Your task to perform on an android device: What's the weather going to be tomorrow? Image 0: 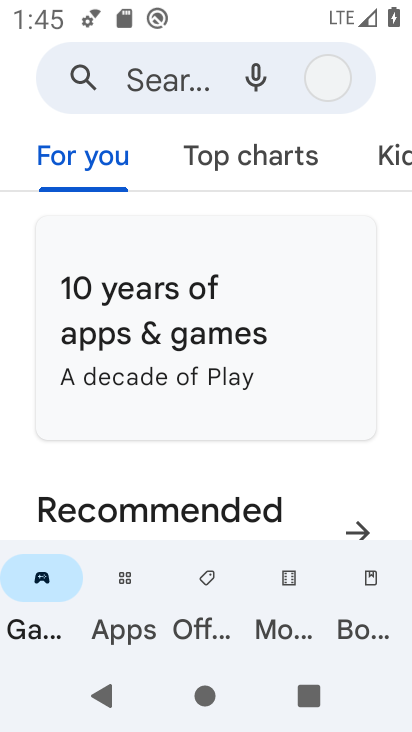
Step 0: press home button
Your task to perform on an android device: What's the weather going to be tomorrow? Image 1: 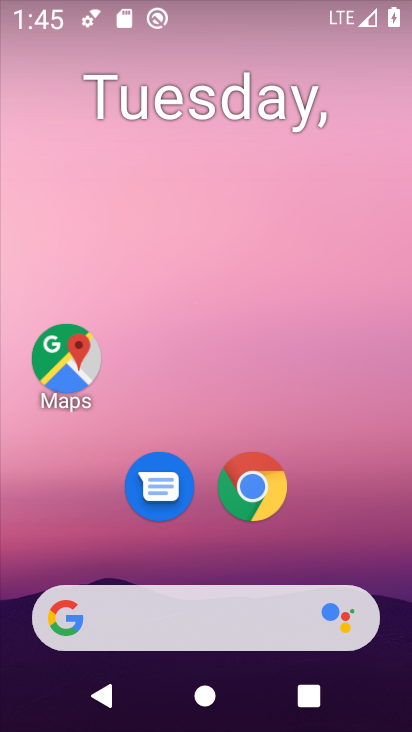
Step 1: click (220, 606)
Your task to perform on an android device: What's the weather going to be tomorrow? Image 2: 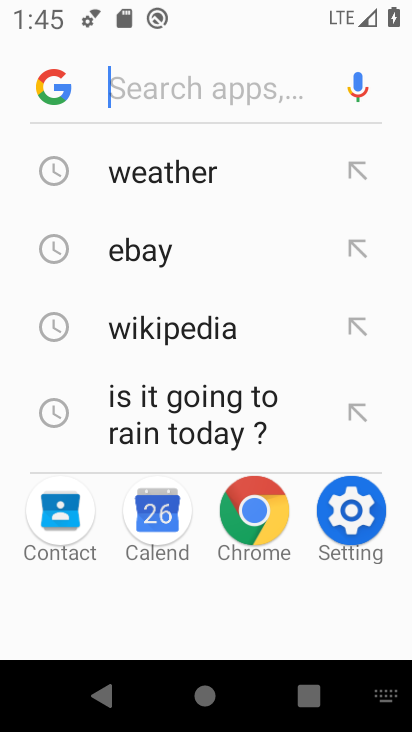
Step 2: click (197, 182)
Your task to perform on an android device: What's the weather going to be tomorrow? Image 3: 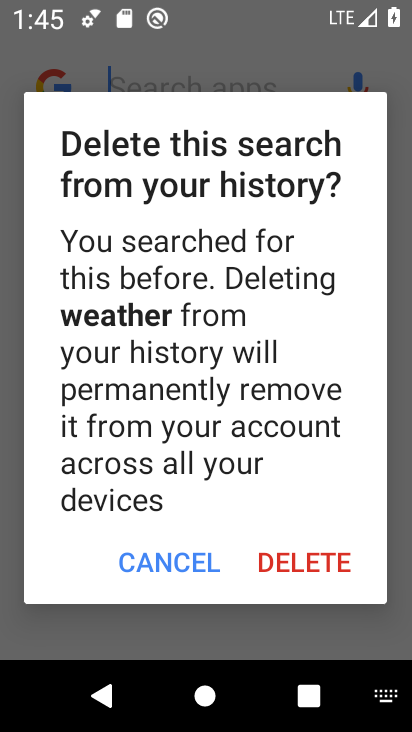
Step 3: click (188, 572)
Your task to perform on an android device: What's the weather going to be tomorrow? Image 4: 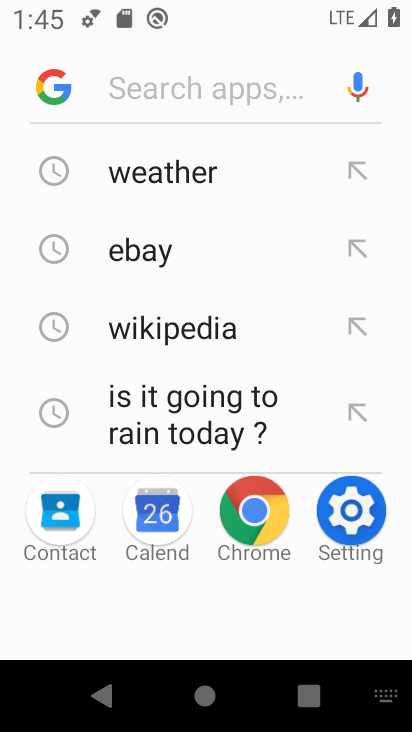
Step 4: click (153, 172)
Your task to perform on an android device: What's the weather going to be tomorrow? Image 5: 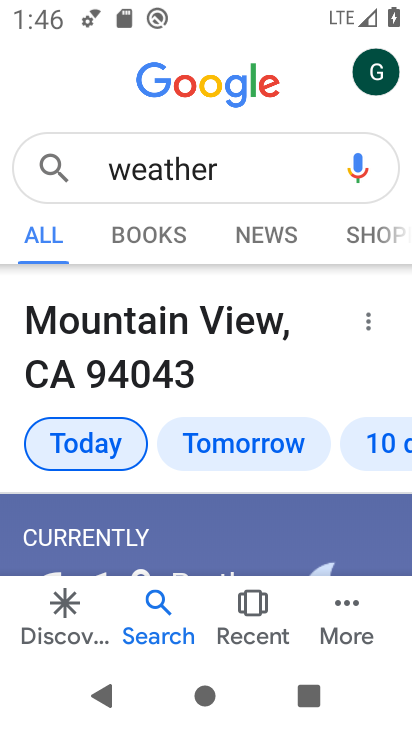
Step 5: click (258, 447)
Your task to perform on an android device: What's the weather going to be tomorrow? Image 6: 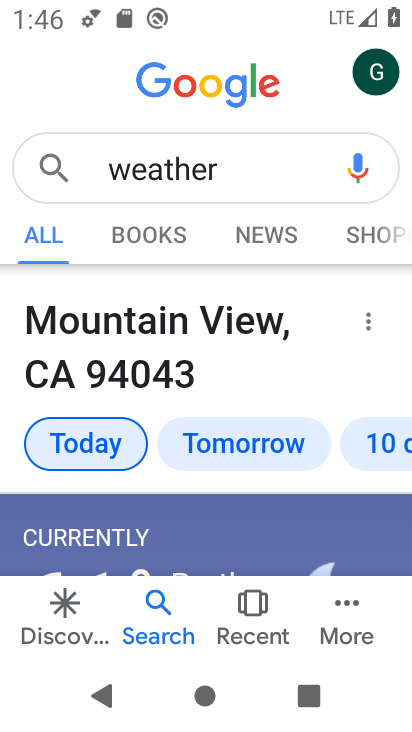
Step 6: click (195, 441)
Your task to perform on an android device: What's the weather going to be tomorrow? Image 7: 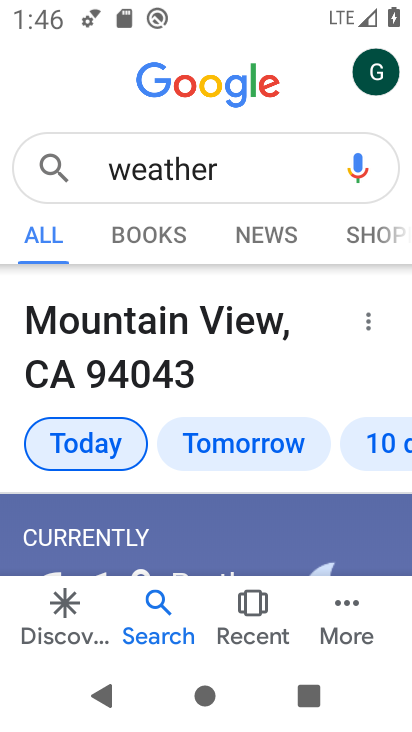
Step 7: click (240, 455)
Your task to perform on an android device: What's the weather going to be tomorrow? Image 8: 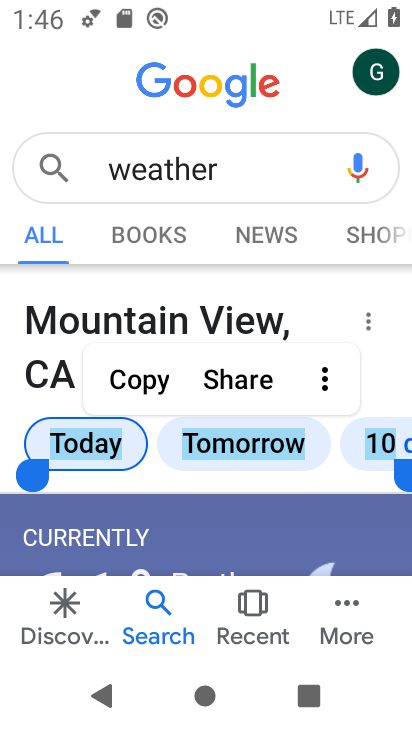
Step 8: task complete